Your task to perform on an android device: Open the calendar and show me this week's events Image 0: 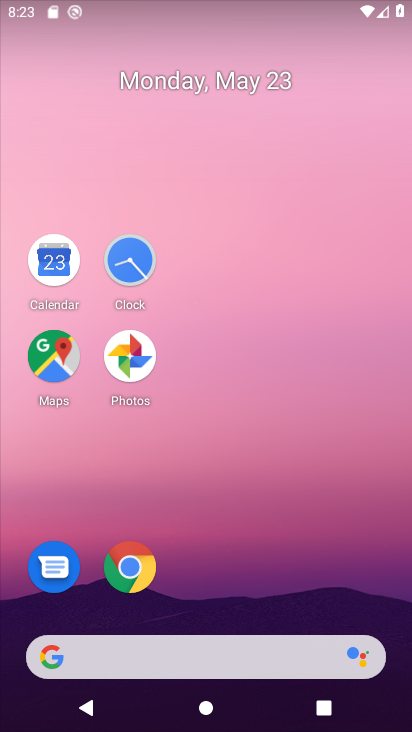
Step 0: drag from (261, 623) to (313, 102)
Your task to perform on an android device: Open the calendar and show me this week's events Image 1: 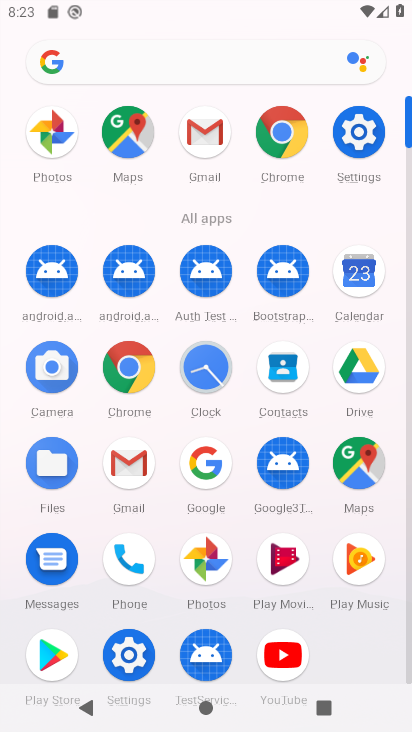
Step 1: click (364, 265)
Your task to perform on an android device: Open the calendar and show me this week's events Image 2: 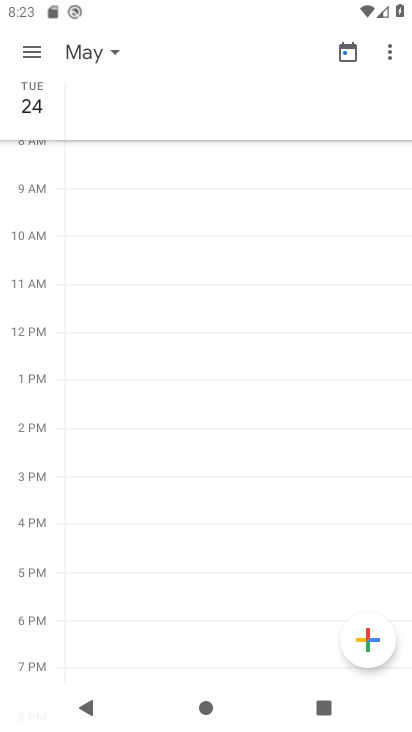
Step 2: click (40, 51)
Your task to perform on an android device: Open the calendar and show me this week's events Image 3: 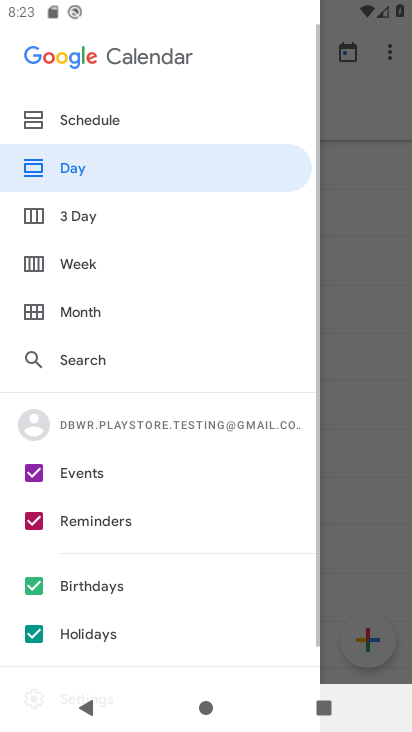
Step 3: click (165, 269)
Your task to perform on an android device: Open the calendar and show me this week's events Image 4: 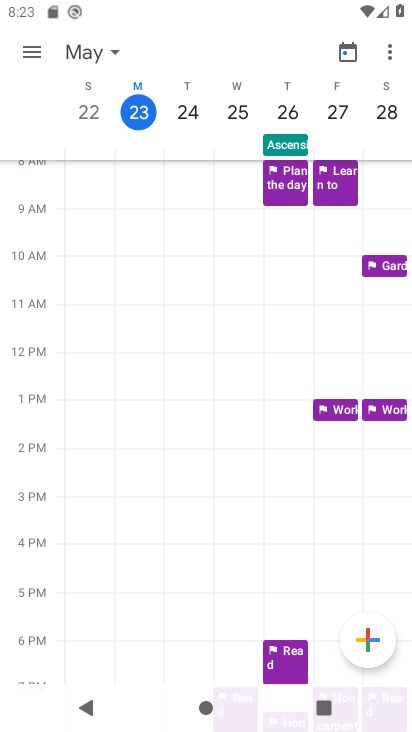
Step 4: task complete